Your task to perform on an android device: all mails in gmail Image 0: 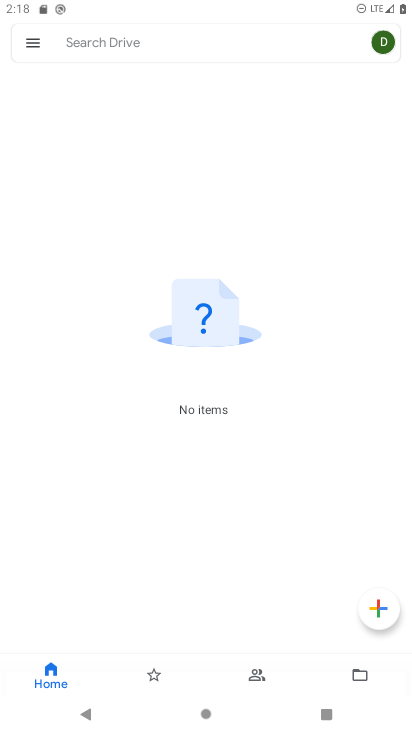
Step 0: press home button
Your task to perform on an android device: all mails in gmail Image 1: 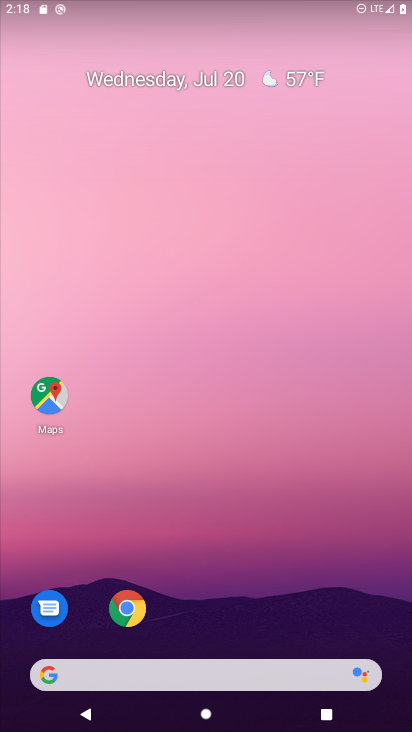
Step 1: drag from (240, 718) to (240, 240)
Your task to perform on an android device: all mails in gmail Image 2: 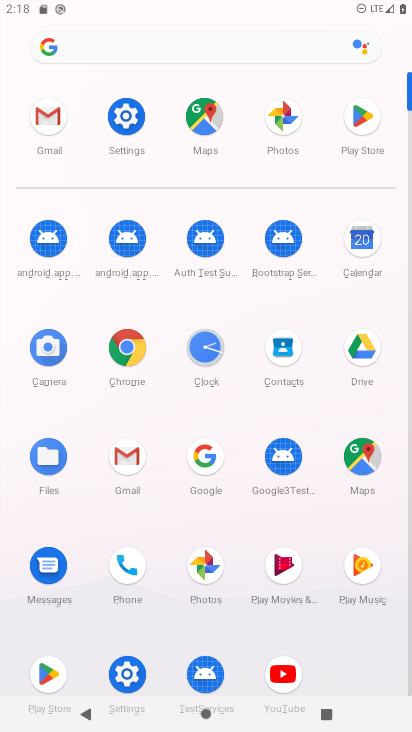
Step 2: click (123, 454)
Your task to perform on an android device: all mails in gmail Image 3: 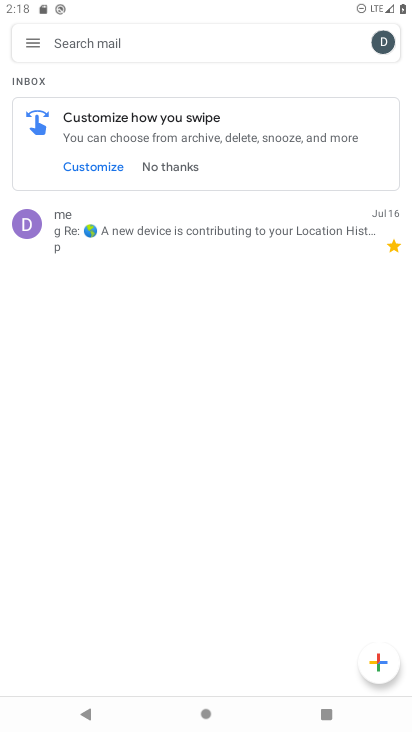
Step 3: click (31, 46)
Your task to perform on an android device: all mails in gmail Image 4: 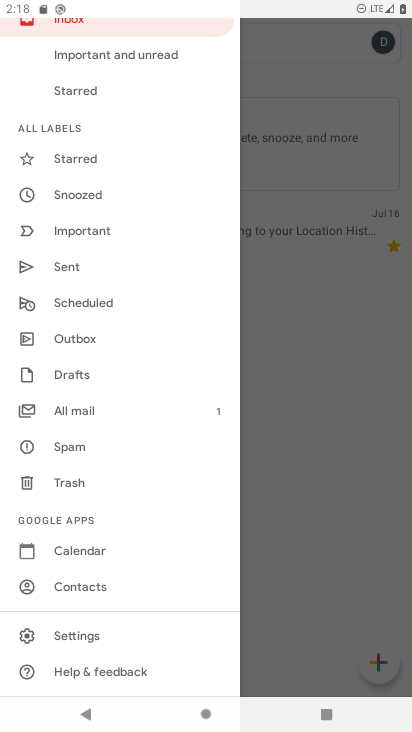
Step 4: click (74, 406)
Your task to perform on an android device: all mails in gmail Image 5: 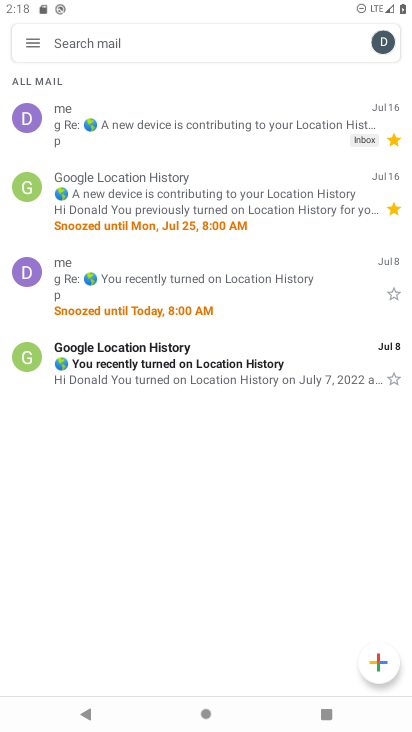
Step 5: task complete